Your task to perform on an android device: turn off data saver in the chrome app Image 0: 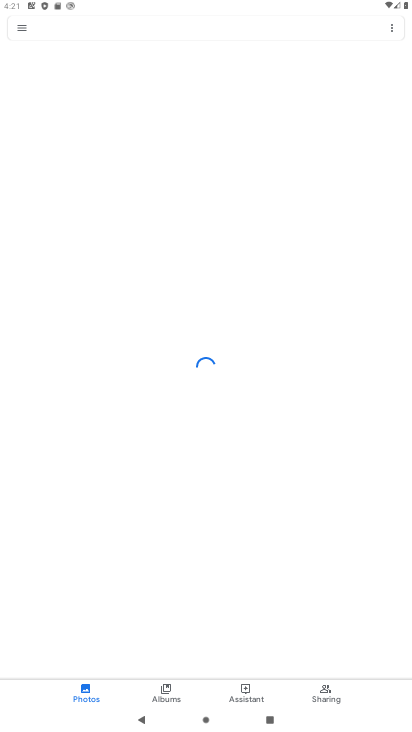
Step 0: press home button
Your task to perform on an android device: turn off data saver in the chrome app Image 1: 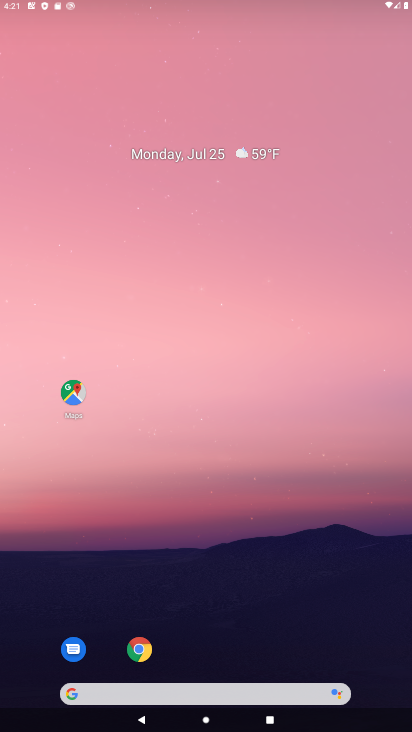
Step 1: drag from (269, 514) to (382, 0)
Your task to perform on an android device: turn off data saver in the chrome app Image 2: 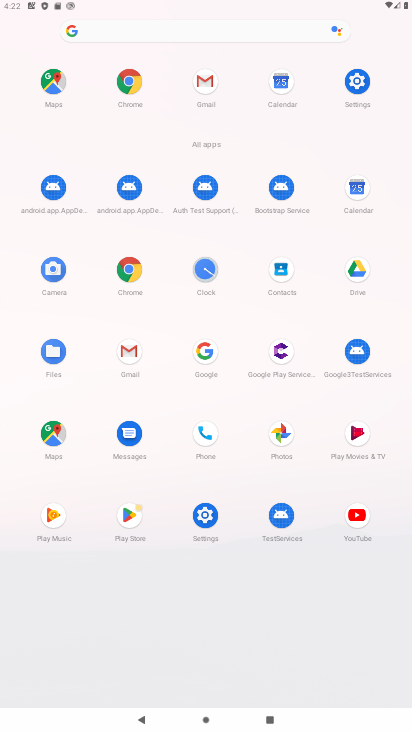
Step 2: click (129, 85)
Your task to perform on an android device: turn off data saver in the chrome app Image 3: 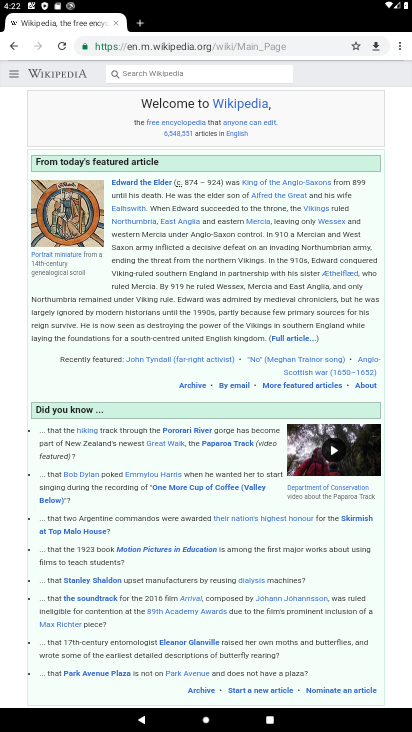
Step 3: drag from (401, 45) to (363, 302)
Your task to perform on an android device: turn off data saver in the chrome app Image 4: 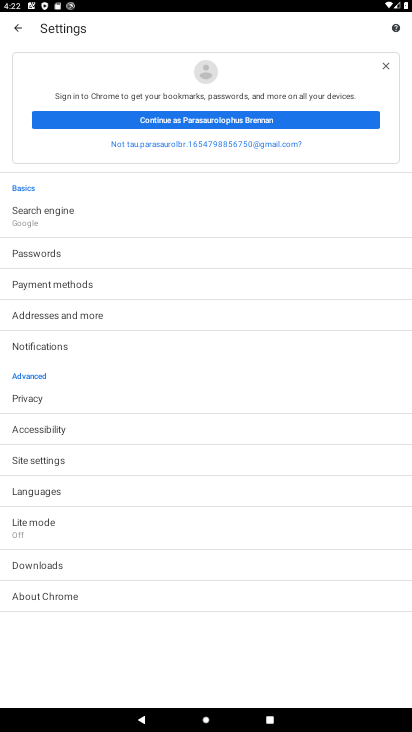
Step 4: drag from (116, 555) to (119, 256)
Your task to perform on an android device: turn off data saver in the chrome app Image 5: 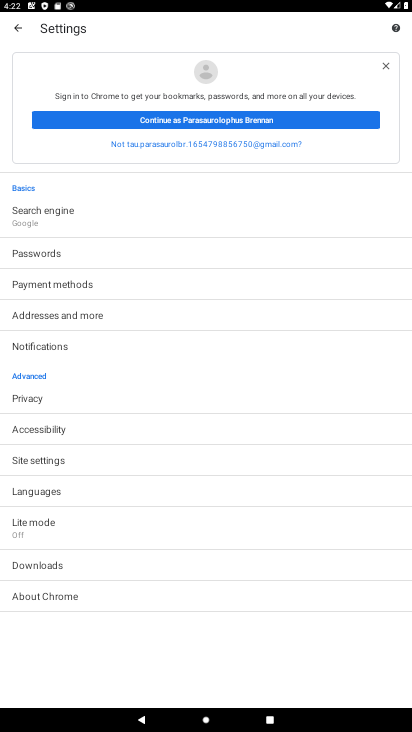
Step 5: click (25, 535)
Your task to perform on an android device: turn off data saver in the chrome app Image 6: 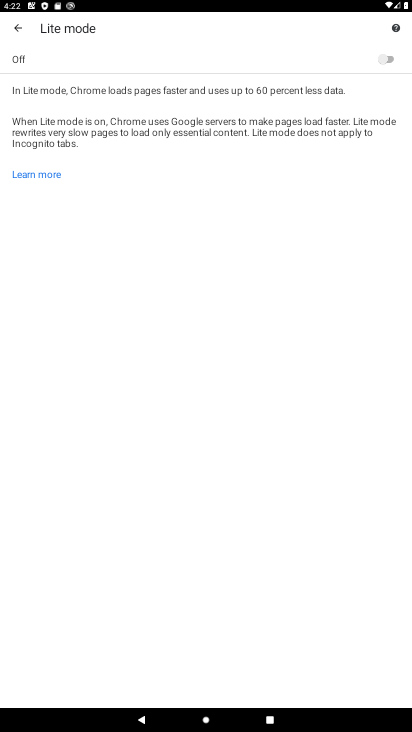
Step 6: task complete